Your task to perform on an android device: open a bookmark in the chrome app Image 0: 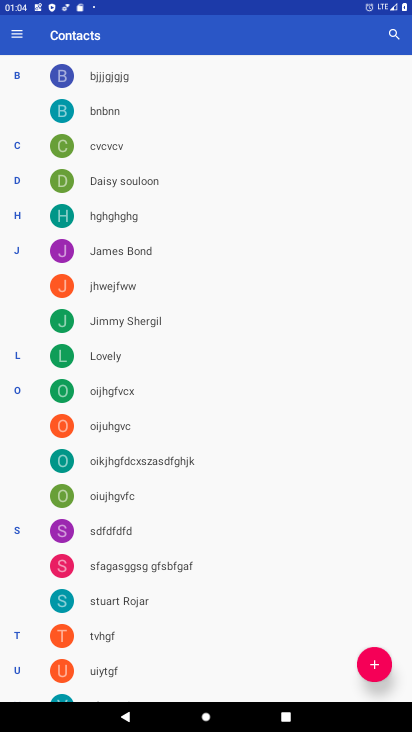
Step 0: click (371, 465)
Your task to perform on an android device: open a bookmark in the chrome app Image 1: 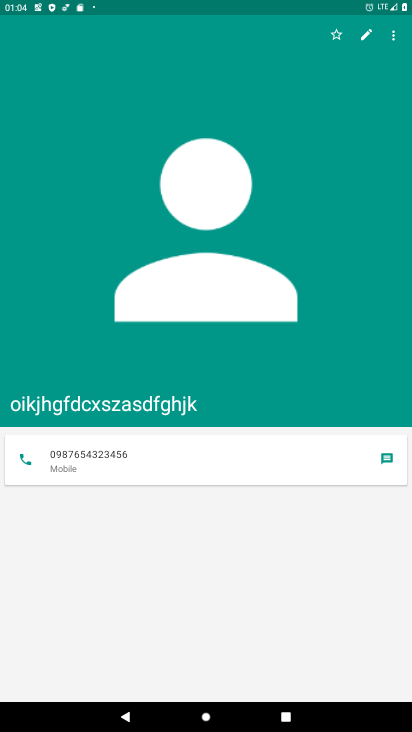
Step 1: press home button
Your task to perform on an android device: open a bookmark in the chrome app Image 2: 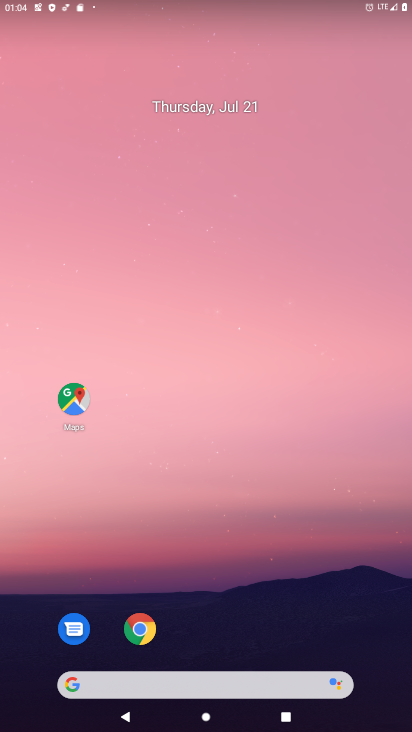
Step 2: click (271, 594)
Your task to perform on an android device: open a bookmark in the chrome app Image 3: 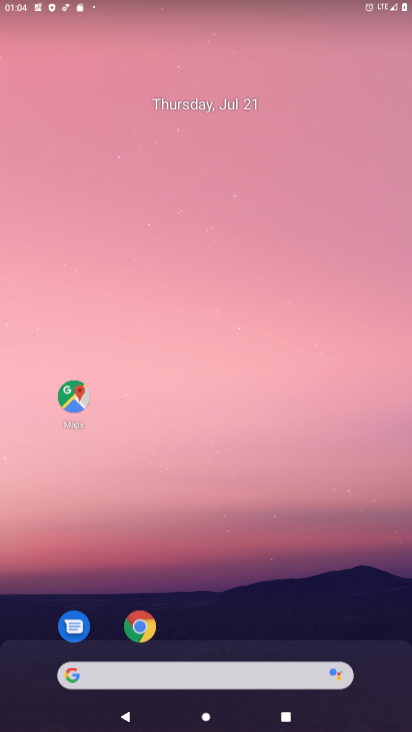
Step 3: drag from (270, 571) to (241, 26)
Your task to perform on an android device: open a bookmark in the chrome app Image 4: 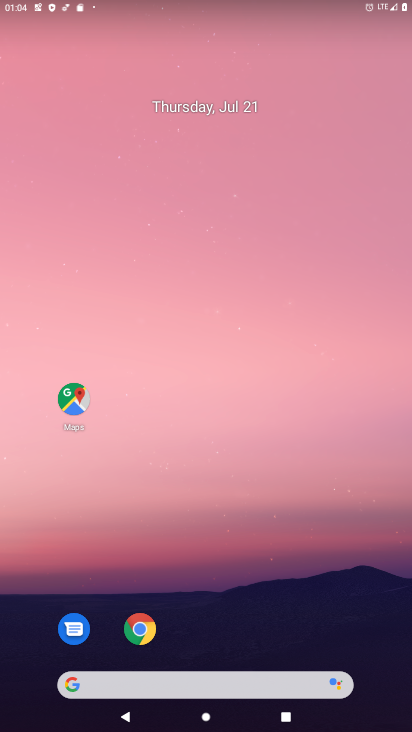
Step 4: drag from (304, 664) to (245, 76)
Your task to perform on an android device: open a bookmark in the chrome app Image 5: 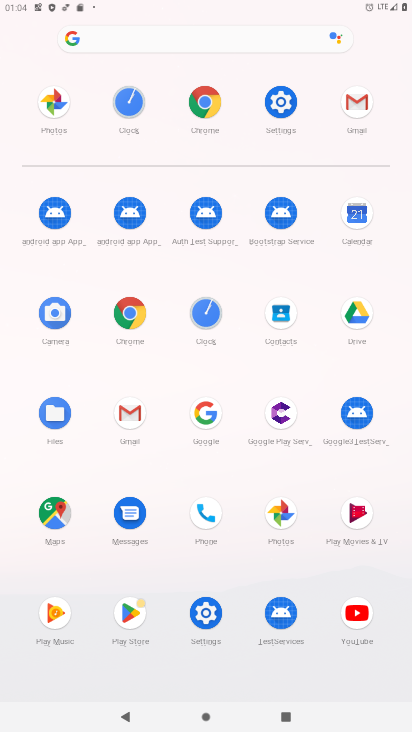
Step 5: click (204, 98)
Your task to perform on an android device: open a bookmark in the chrome app Image 6: 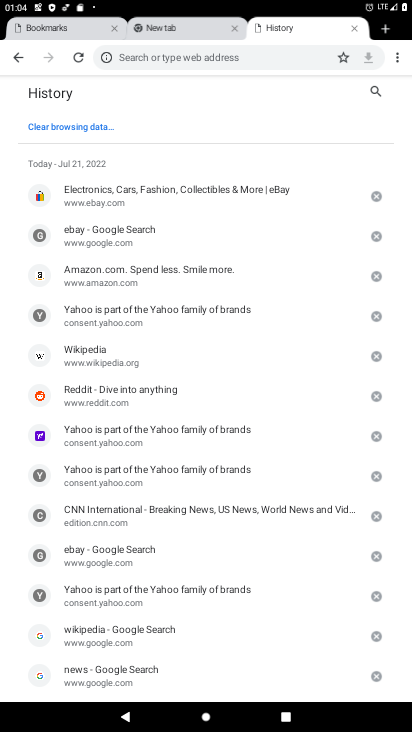
Step 6: click (250, 56)
Your task to perform on an android device: open a bookmark in the chrome app Image 7: 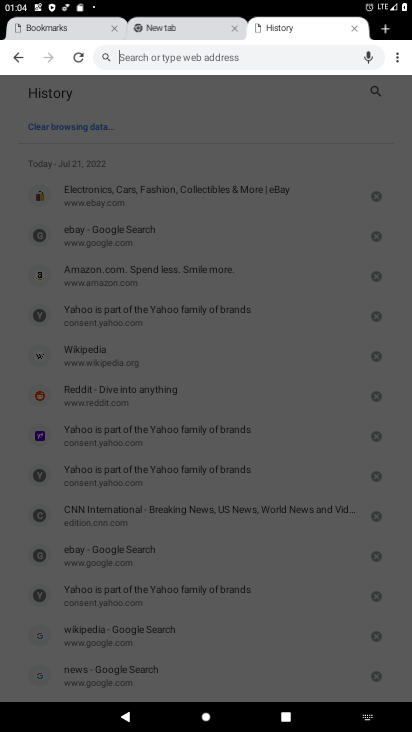
Step 7: drag from (395, 59) to (291, 158)
Your task to perform on an android device: open a bookmark in the chrome app Image 8: 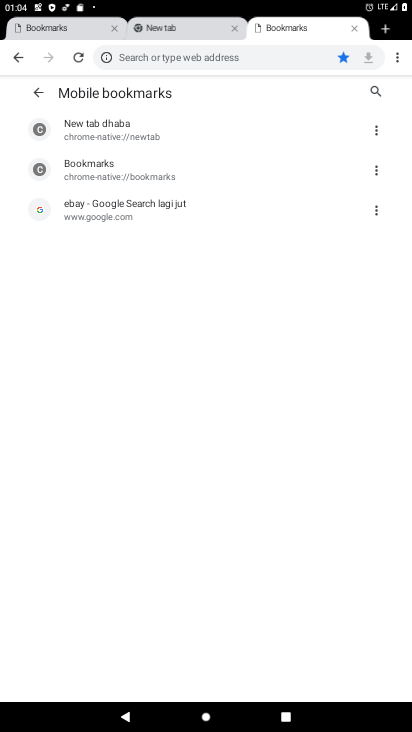
Step 8: click (111, 216)
Your task to perform on an android device: open a bookmark in the chrome app Image 9: 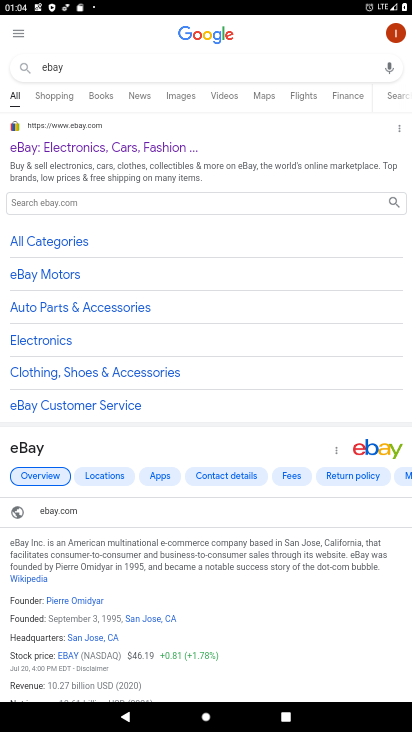
Step 9: task complete